Your task to perform on an android device: turn off sleep mode Image 0: 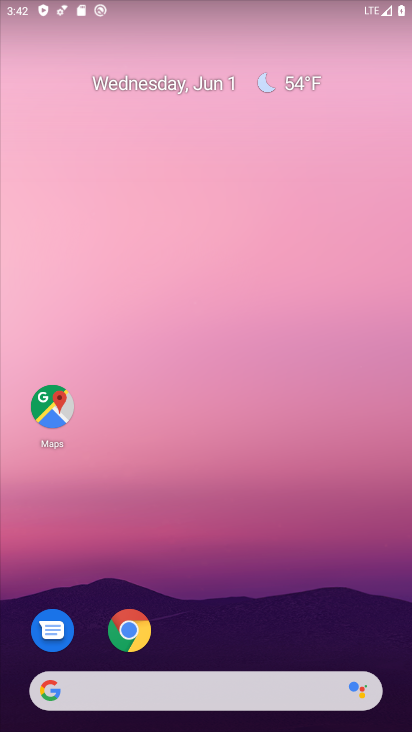
Step 0: drag from (232, 579) to (240, 5)
Your task to perform on an android device: turn off sleep mode Image 1: 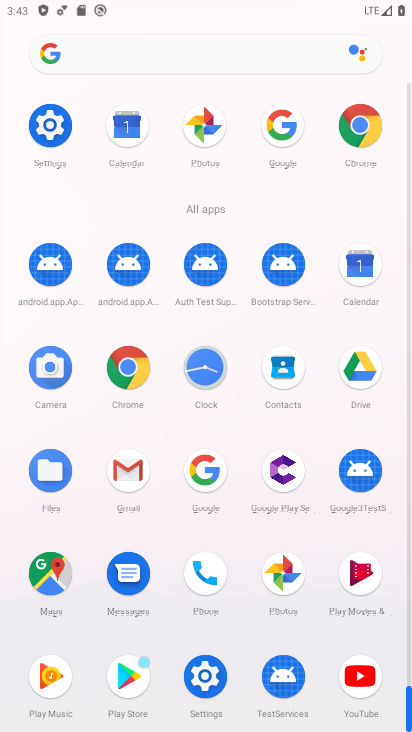
Step 1: drag from (6, 582) to (16, 190)
Your task to perform on an android device: turn off sleep mode Image 2: 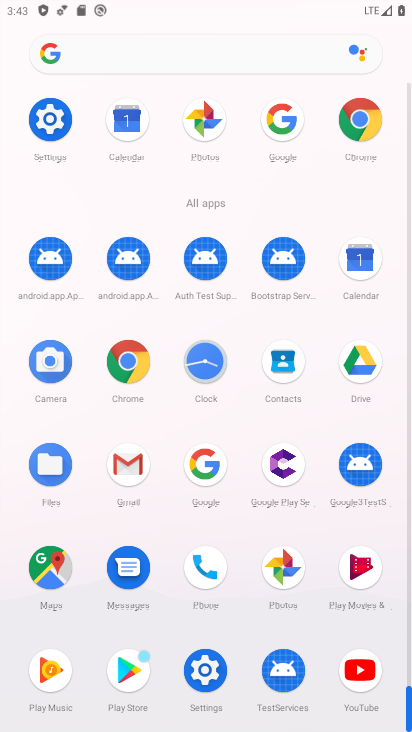
Step 2: click (207, 671)
Your task to perform on an android device: turn off sleep mode Image 3: 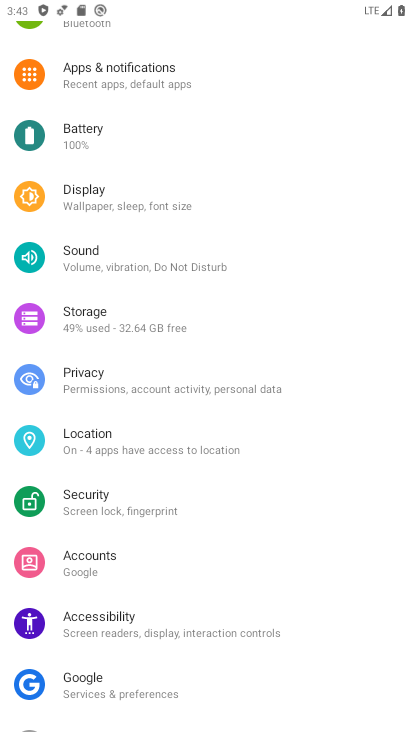
Step 3: drag from (166, 116) to (168, 513)
Your task to perform on an android device: turn off sleep mode Image 4: 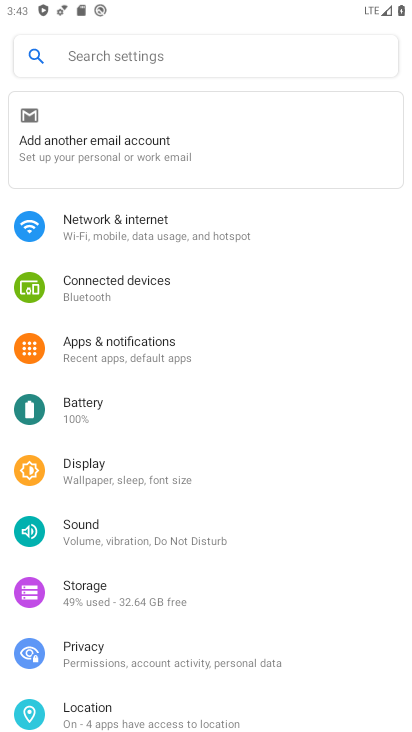
Step 4: click (151, 475)
Your task to perform on an android device: turn off sleep mode Image 5: 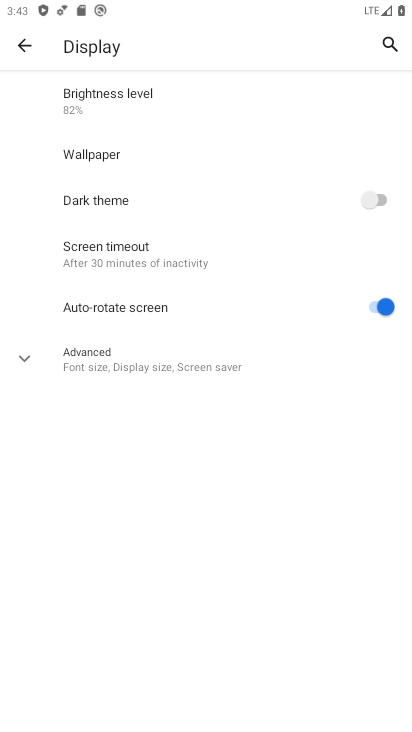
Step 5: click (31, 364)
Your task to perform on an android device: turn off sleep mode Image 6: 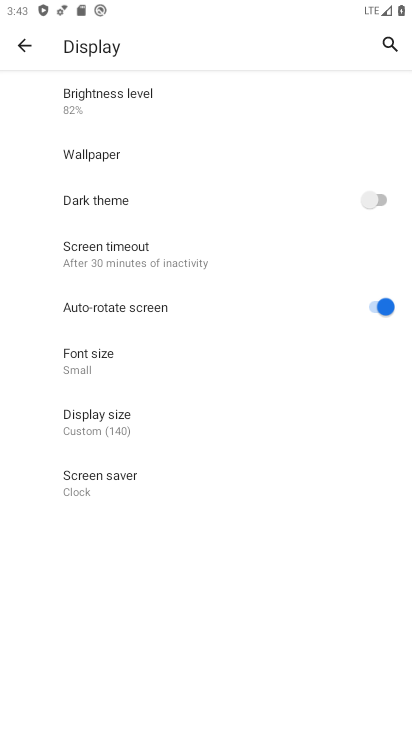
Step 6: task complete